Your task to perform on an android device: Search for Italian restaurants on Maps Image 0: 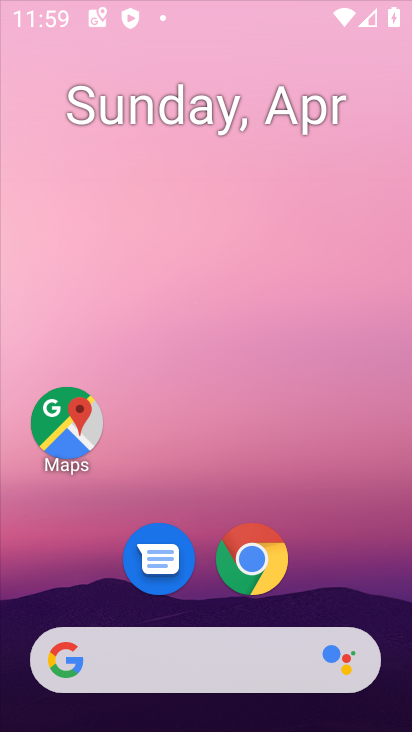
Step 0: click (315, 282)
Your task to perform on an android device: Search for Italian restaurants on Maps Image 1: 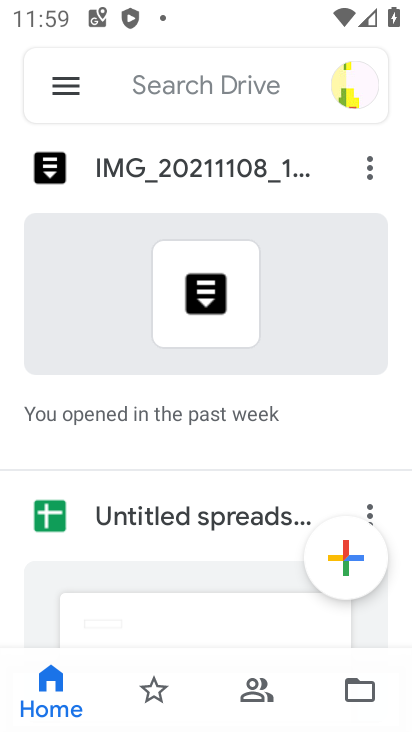
Step 1: press home button
Your task to perform on an android device: Search for Italian restaurants on Maps Image 2: 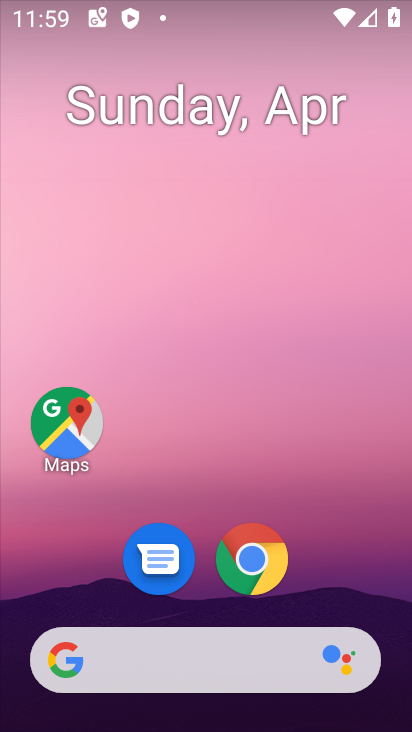
Step 2: drag from (347, 577) to (323, 115)
Your task to perform on an android device: Search for Italian restaurants on Maps Image 3: 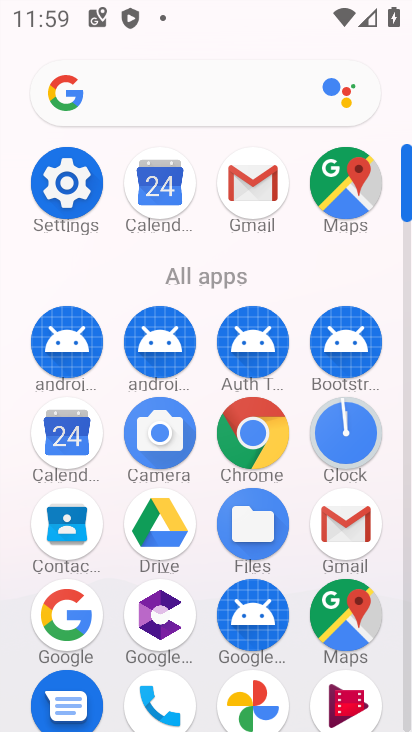
Step 3: click (355, 177)
Your task to perform on an android device: Search for Italian restaurants on Maps Image 4: 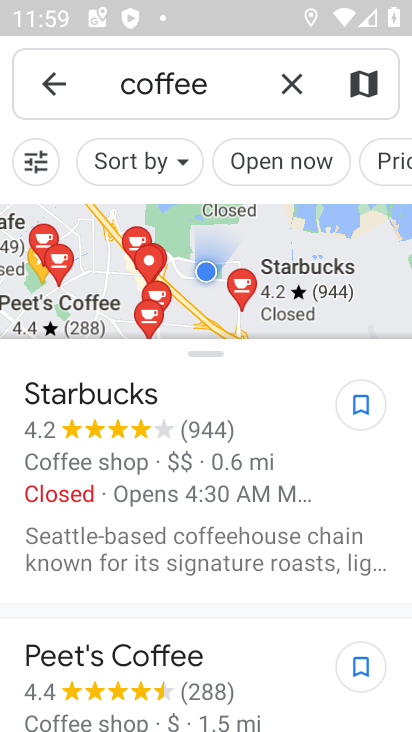
Step 4: click (297, 89)
Your task to perform on an android device: Search for Italian restaurants on Maps Image 5: 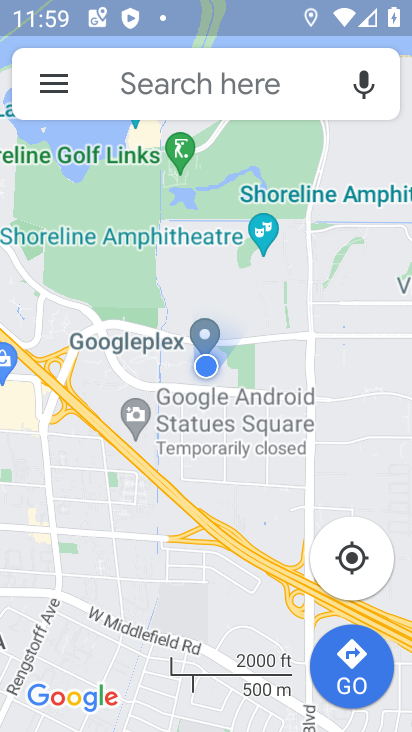
Step 5: click (297, 89)
Your task to perform on an android device: Search for Italian restaurants on Maps Image 6: 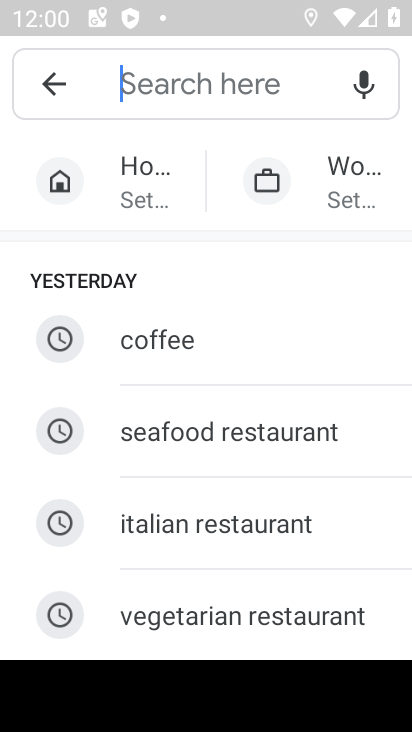
Step 6: click (168, 528)
Your task to perform on an android device: Search for Italian restaurants on Maps Image 7: 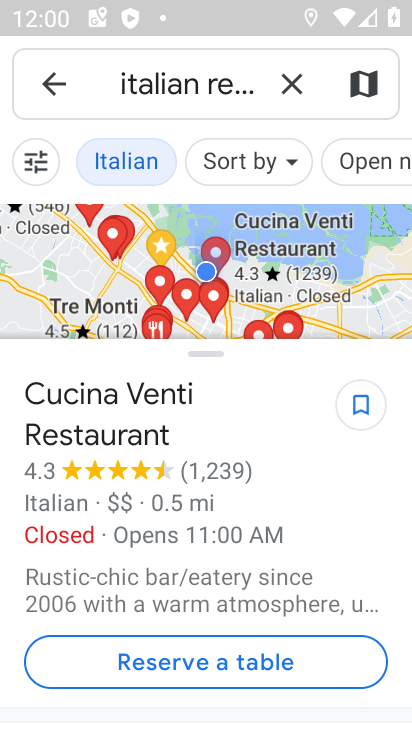
Step 7: task complete